Your task to perform on an android device: Open accessibility settings Image 0: 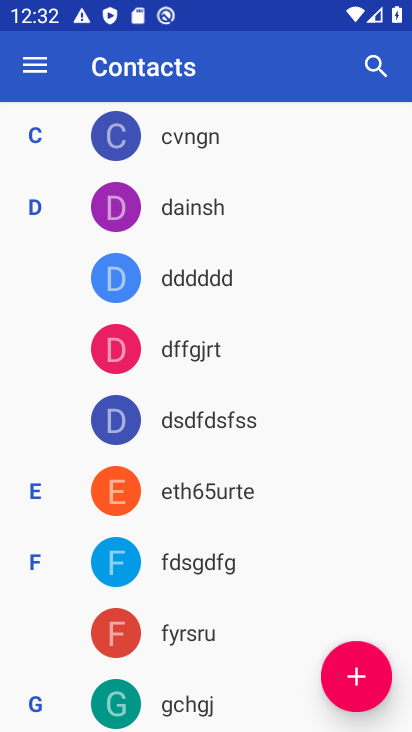
Step 0: press home button
Your task to perform on an android device: Open accessibility settings Image 1: 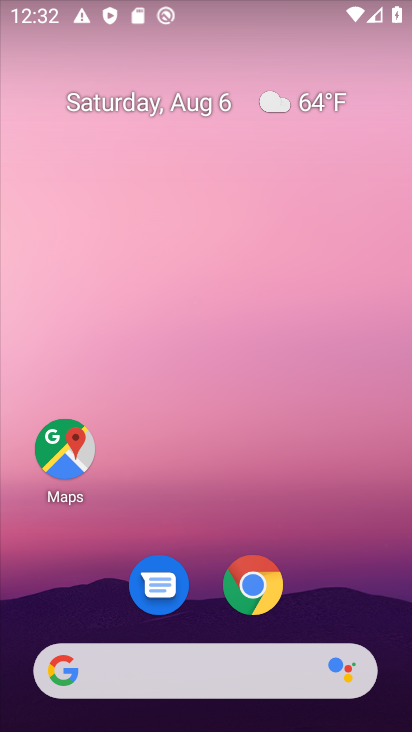
Step 1: drag from (207, 544) to (237, 12)
Your task to perform on an android device: Open accessibility settings Image 2: 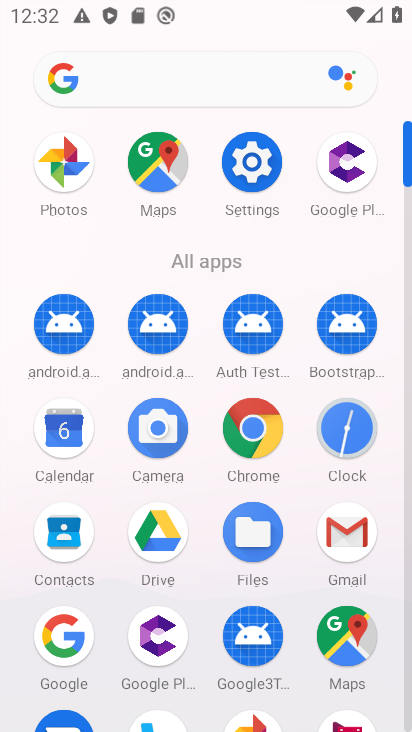
Step 2: click (256, 173)
Your task to perform on an android device: Open accessibility settings Image 3: 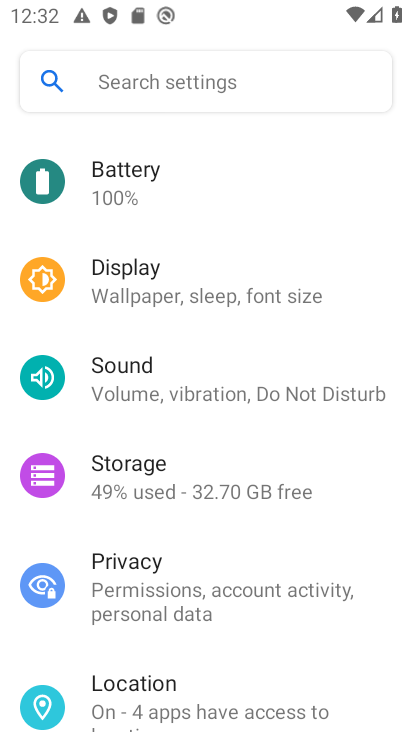
Step 3: drag from (203, 644) to (249, 40)
Your task to perform on an android device: Open accessibility settings Image 4: 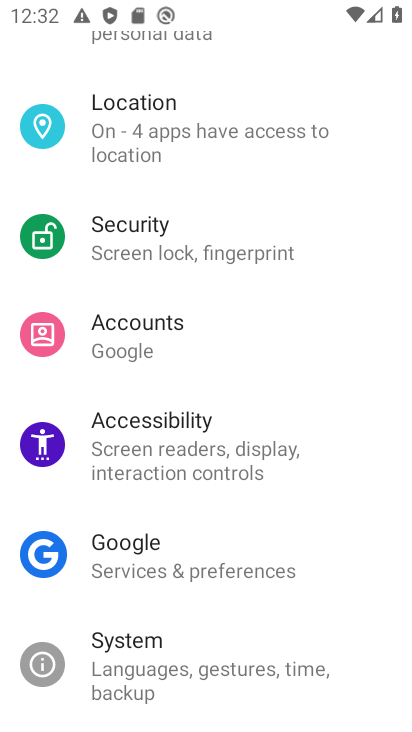
Step 4: click (211, 434)
Your task to perform on an android device: Open accessibility settings Image 5: 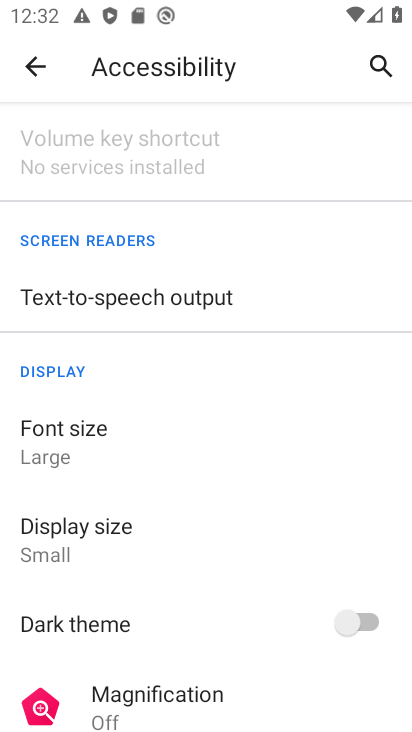
Step 5: task complete